Your task to perform on an android device: Open the calendar and show me this week's events Image 0: 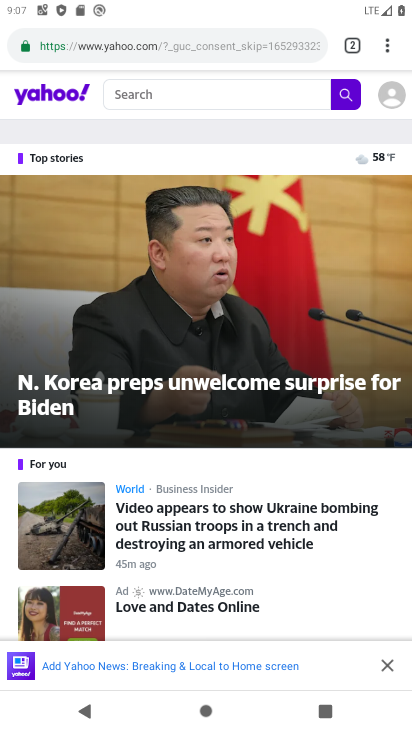
Step 0: press home button
Your task to perform on an android device: Open the calendar and show me this week's events Image 1: 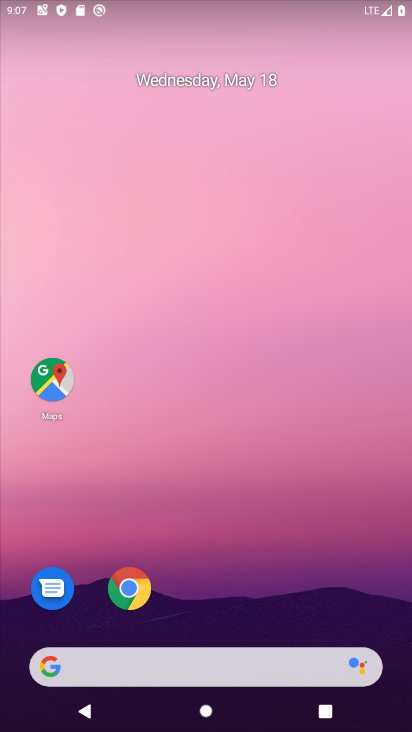
Step 1: drag from (343, 632) to (287, 13)
Your task to perform on an android device: Open the calendar and show me this week's events Image 2: 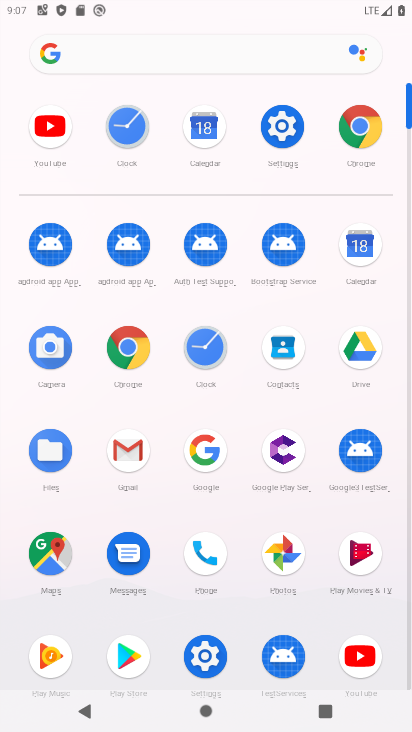
Step 2: click (198, 125)
Your task to perform on an android device: Open the calendar and show me this week's events Image 3: 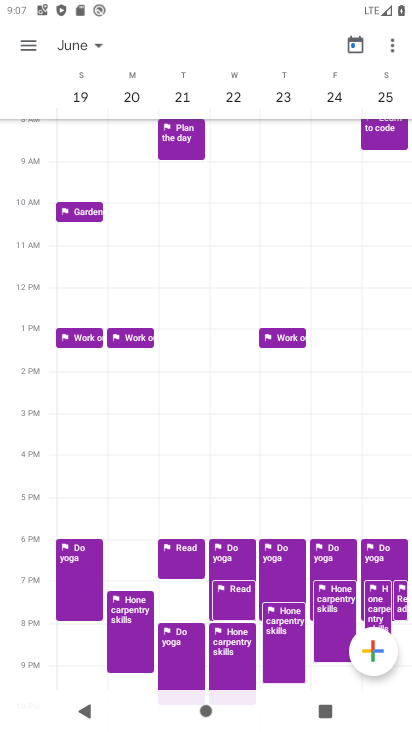
Step 3: click (354, 54)
Your task to perform on an android device: Open the calendar and show me this week's events Image 4: 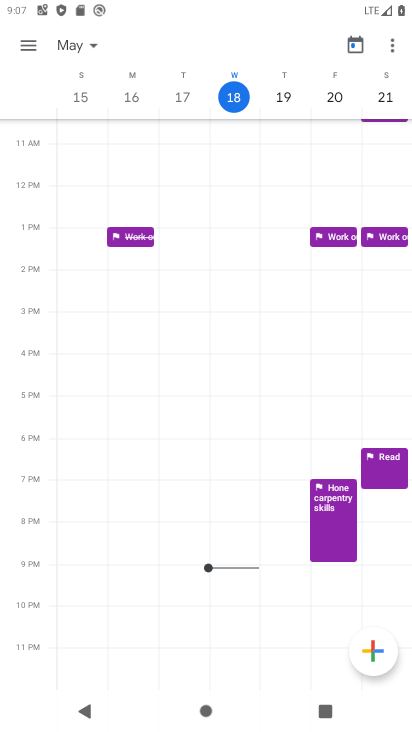
Step 4: task complete